Your task to perform on an android device: Open Yahoo.com Image 0: 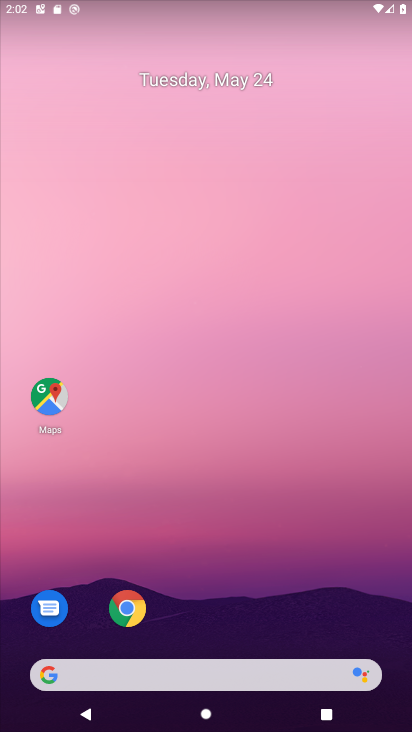
Step 0: click (157, 669)
Your task to perform on an android device: Open Yahoo.com Image 1: 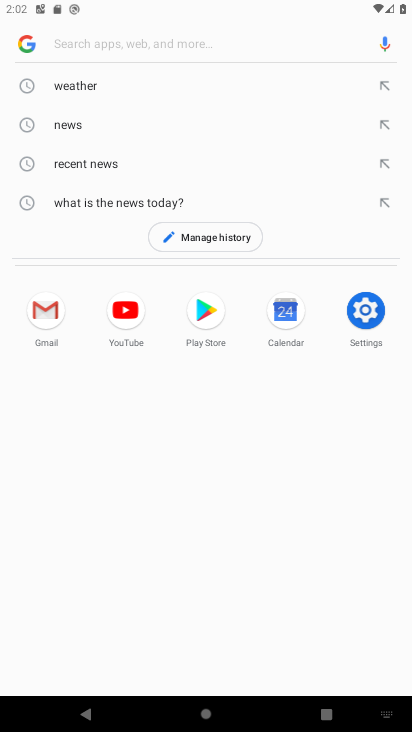
Step 1: type "yahoo.com"
Your task to perform on an android device: Open Yahoo.com Image 2: 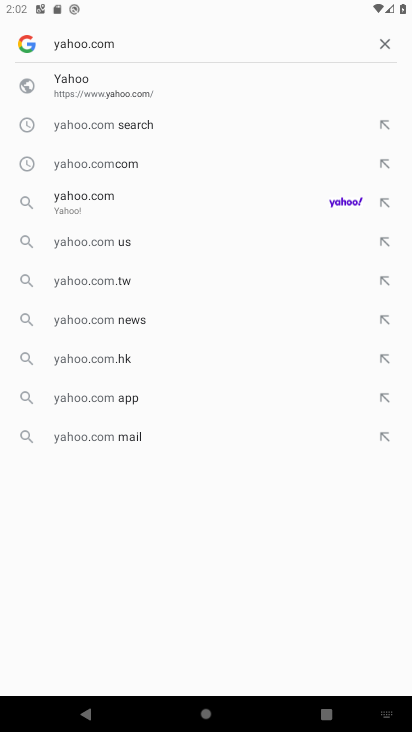
Step 2: click (269, 98)
Your task to perform on an android device: Open Yahoo.com Image 3: 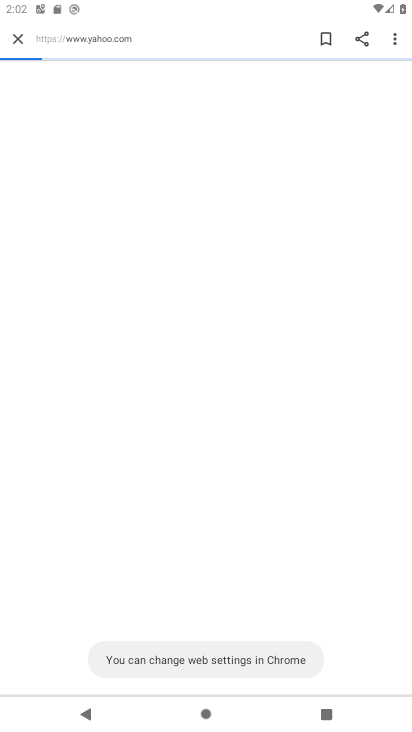
Step 3: task complete